Your task to perform on an android device: turn off location Image 0: 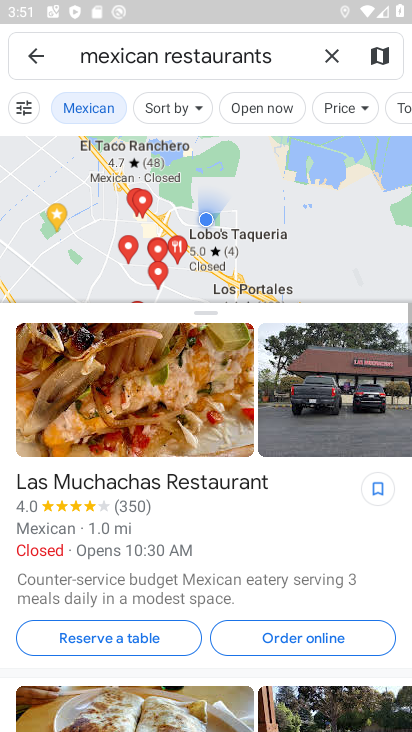
Step 0: press home button
Your task to perform on an android device: turn off location Image 1: 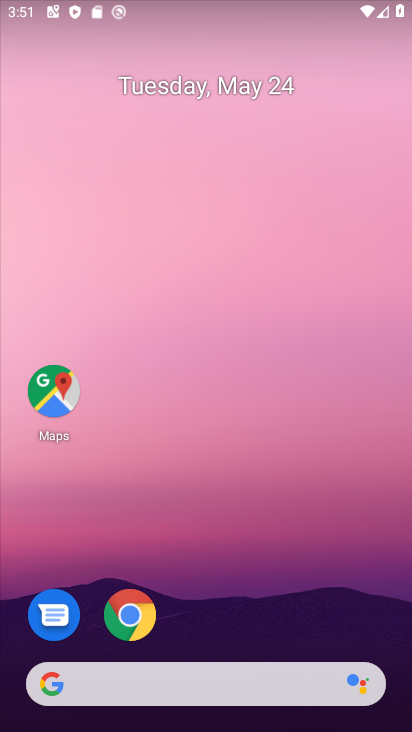
Step 1: drag from (202, 716) to (213, 94)
Your task to perform on an android device: turn off location Image 2: 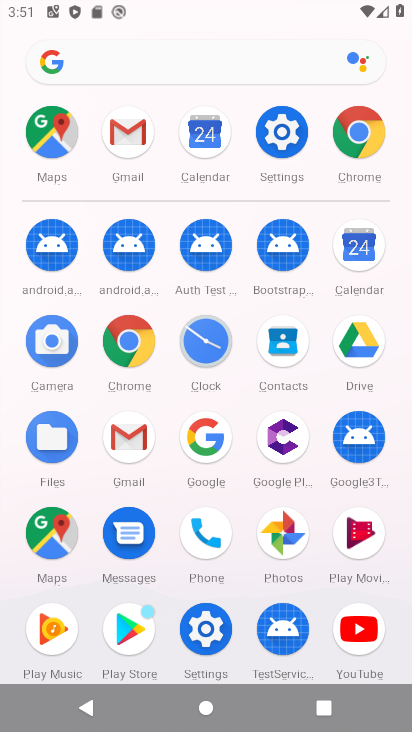
Step 2: click (287, 126)
Your task to perform on an android device: turn off location Image 3: 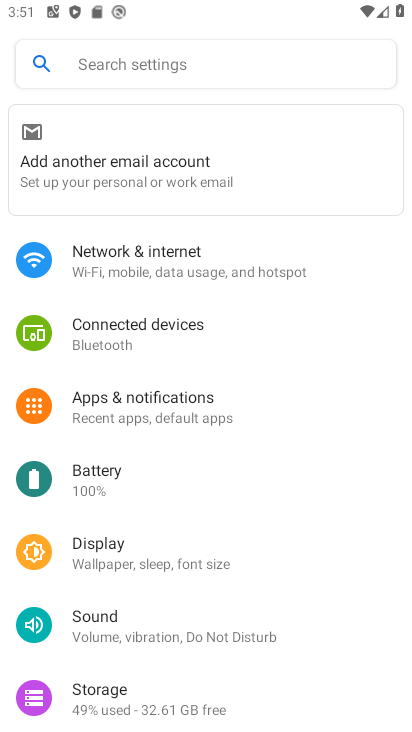
Step 3: drag from (148, 659) to (154, 376)
Your task to perform on an android device: turn off location Image 4: 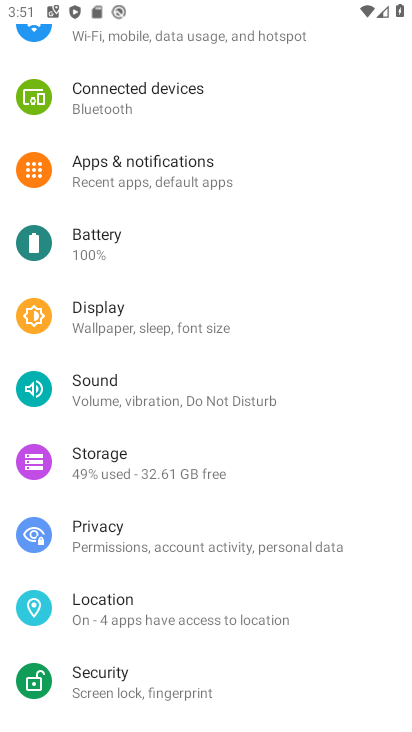
Step 4: click (128, 601)
Your task to perform on an android device: turn off location Image 5: 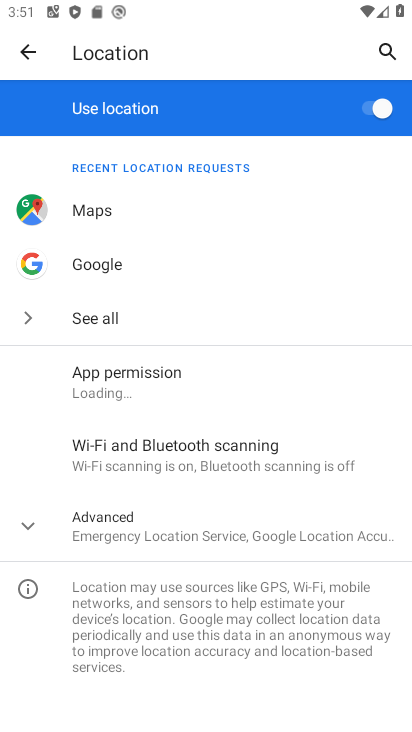
Step 5: click (367, 103)
Your task to perform on an android device: turn off location Image 6: 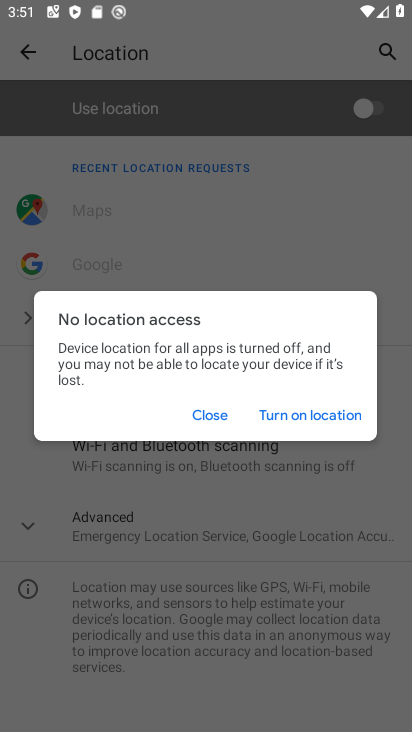
Step 6: click (210, 411)
Your task to perform on an android device: turn off location Image 7: 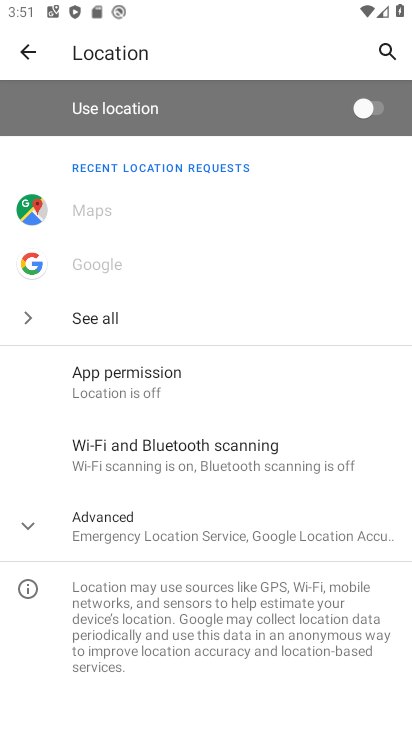
Step 7: task complete